Your task to perform on an android device: star an email in the gmail app Image 0: 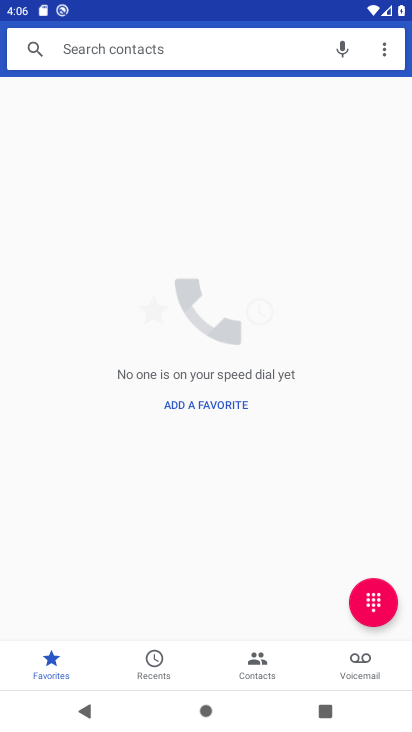
Step 0: press home button
Your task to perform on an android device: star an email in the gmail app Image 1: 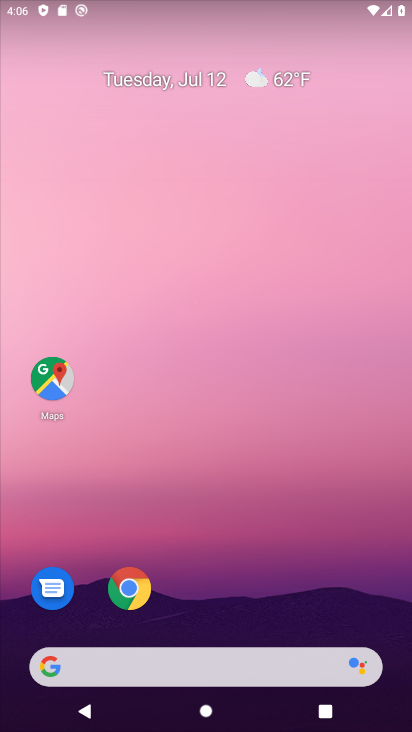
Step 1: drag from (228, 640) to (348, 26)
Your task to perform on an android device: star an email in the gmail app Image 2: 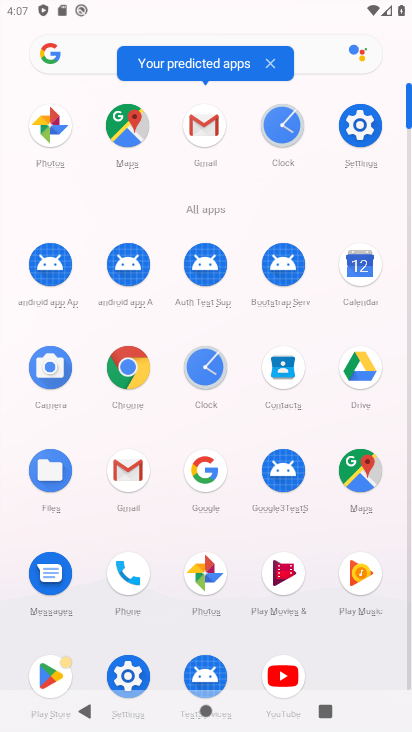
Step 2: click (131, 479)
Your task to perform on an android device: star an email in the gmail app Image 3: 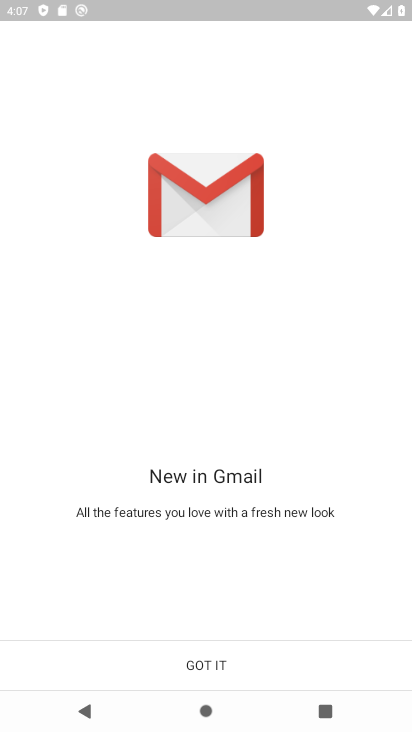
Step 3: click (211, 677)
Your task to perform on an android device: star an email in the gmail app Image 4: 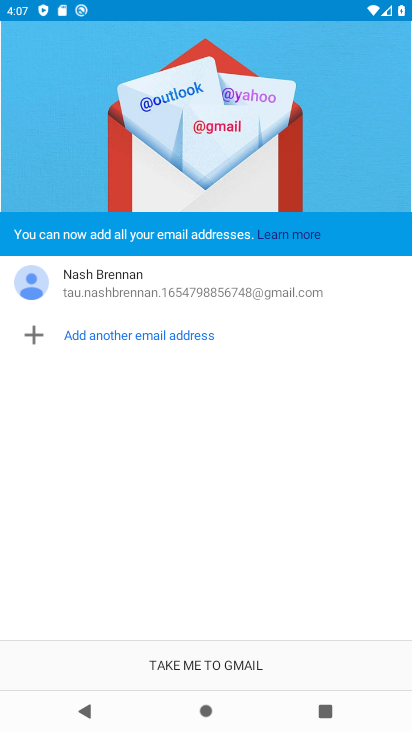
Step 4: click (211, 677)
Your task to perform on an android device: star an email in the gmail app Image 5: 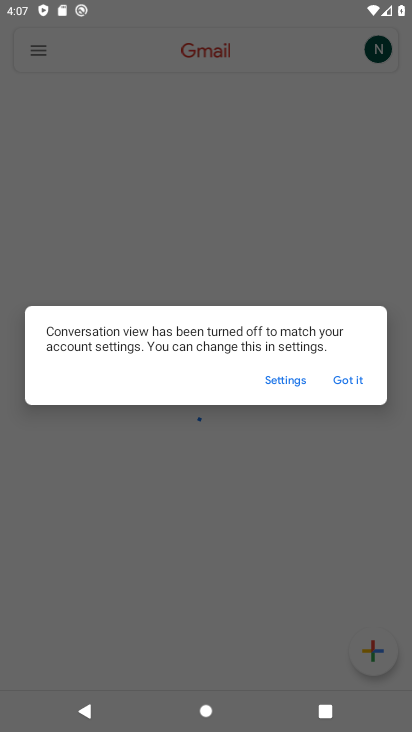
Step 5: click (353, 376)
Your task to perform on an android device: star an email in the gmail app Image 6: 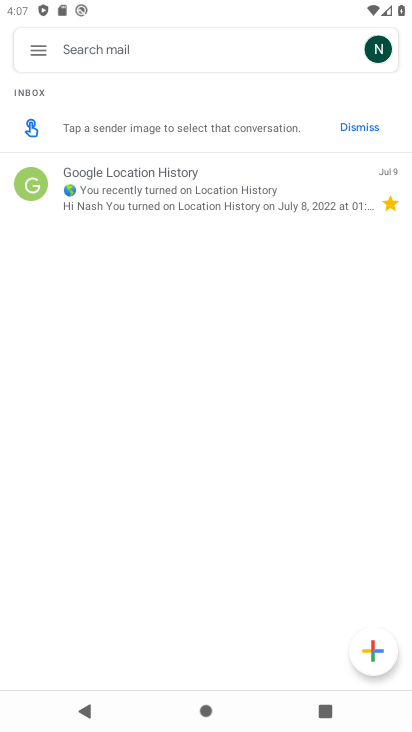
Step 6: task complete